Your task to perform on an android device: Search for pizza restaurants on Maps Image 0: 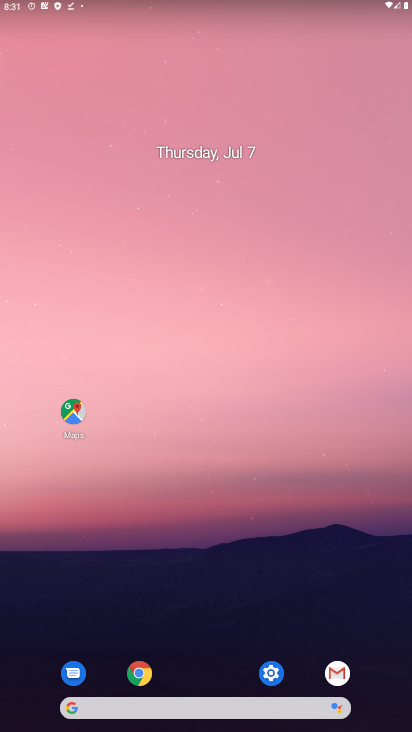
Step 0: click (80, 422)
Your task to perform on an android device: Search for pizza restaurants on Maps Image 1: 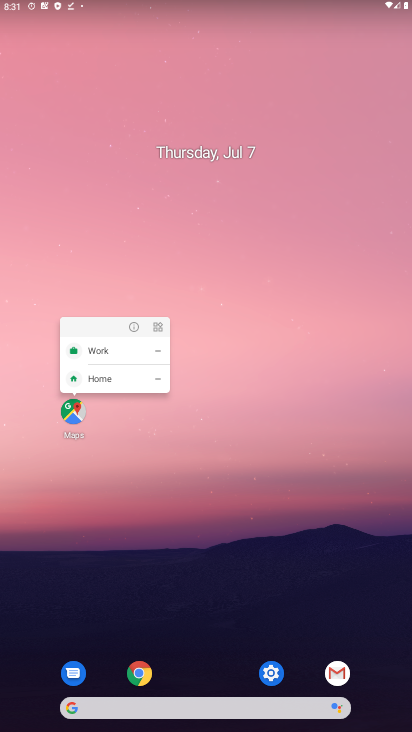
Step 1: click (80, 419)
Your task to perform on an android device: Search for pizza restaurants on Maps Image 2: 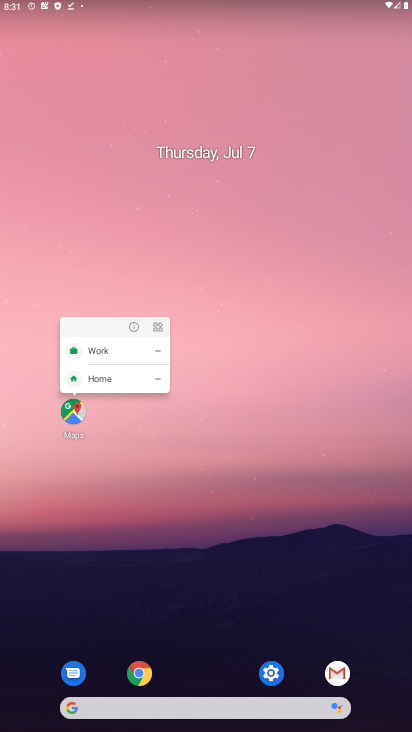
Step 2: click (80, 420)
Your task to perform on an android device: Search for pizza restaurants on Maps Image 3: 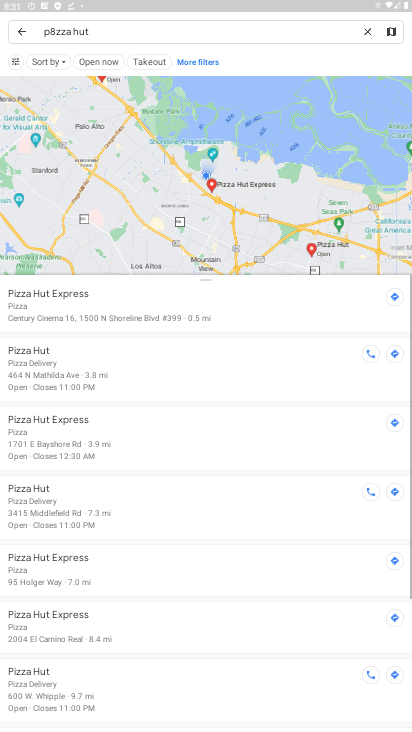
Step 3: click (21, 24)
Your task to perform on an android device: Search for pizza restaurants on Maps Image 4: 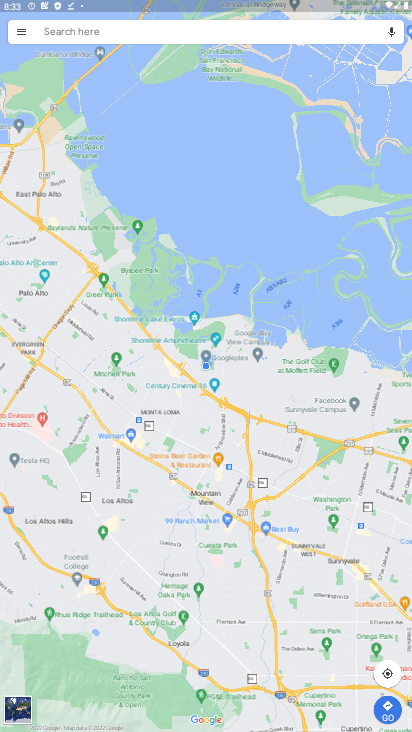
Step 4: task complete